Your task to perform on an android device: Open privacy settings Image 0: 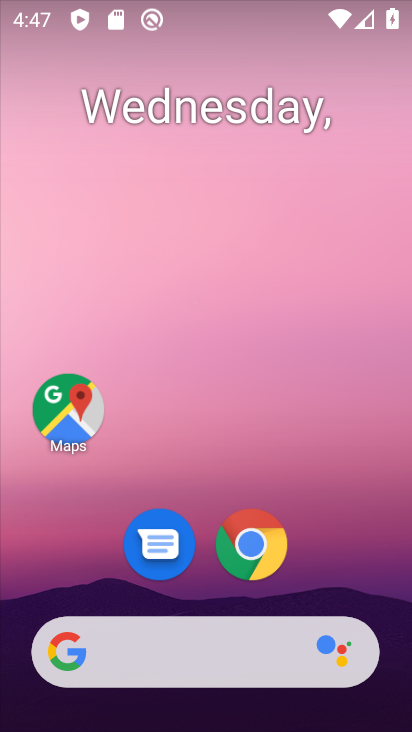
Step 0: drag from (209, 588) to (209, 5)
Your task to perform on an android device: Open privacy settings Image 1: 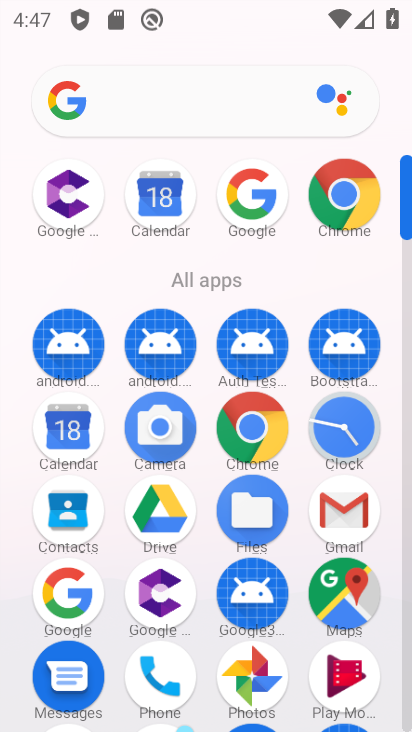
Step 1: drag from (224, 619) to (208, 84)
Your task to perform on an android device: Open privacy settings Image 2: 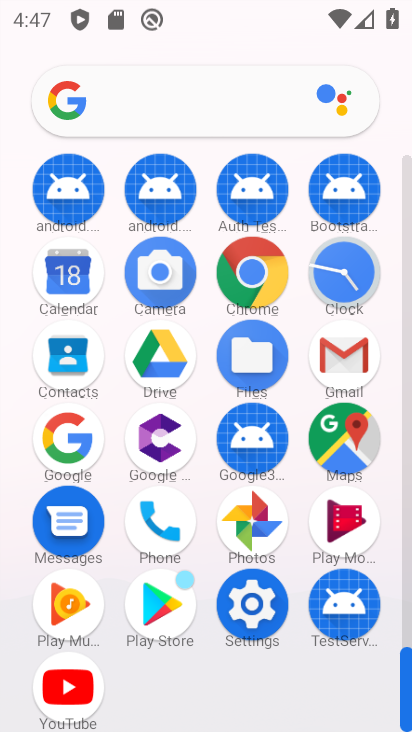
Step 2: click (258, 615)
Your task to perform on an android device: Open privacy settings Image 3: 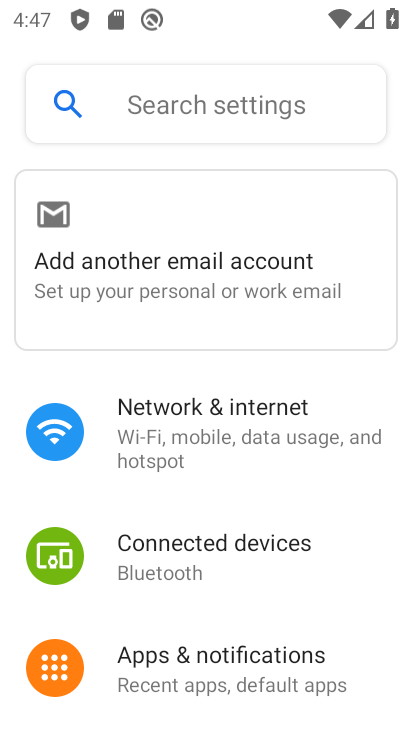
Step 3: drag from (259, 612) to (208, 101)
Your task to perform on an android device: Open privacy settings Image 4: 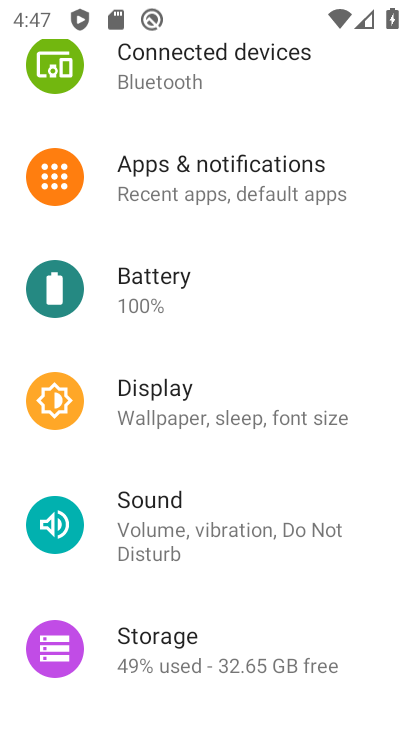
Step 4: drag from (178, 565) to (179, 154)
Your task to perform on an android device: Open privacy settings Image 5: 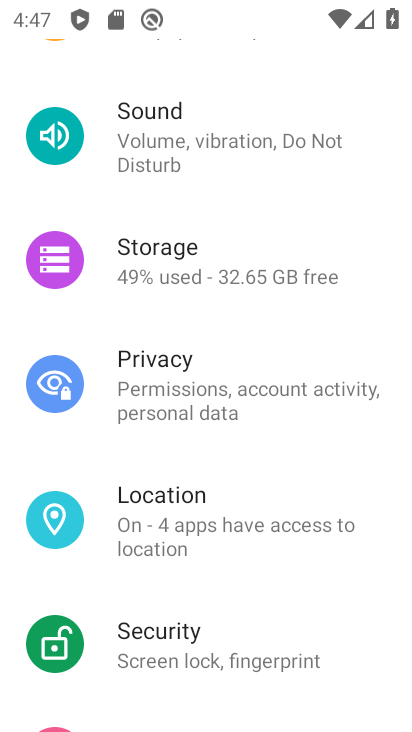
Step 5: click (185, 347)
Your task to perform on an android device: Open privacy settings Image 6: 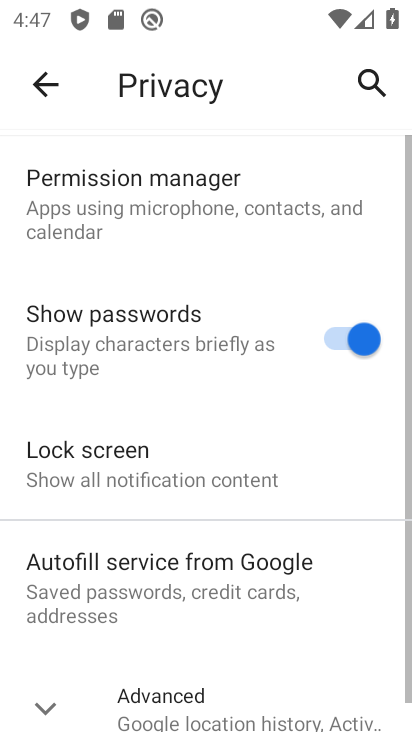
Step 6: task complete